Your task to perform on an android device: set the stopwatch Image 0: 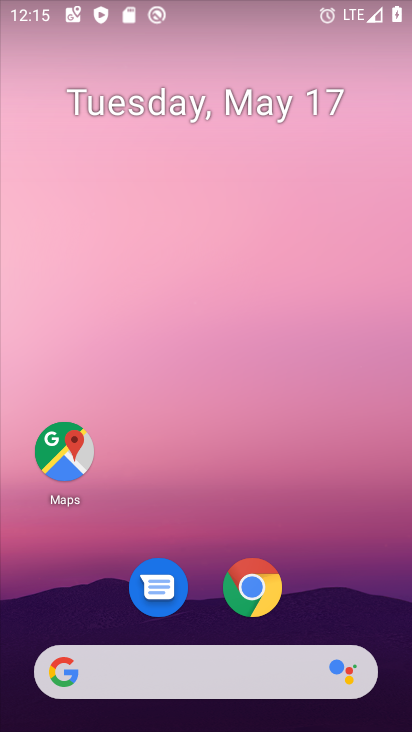
Step 0: drag from (390, 596) to (253, 36)
Your task to perform on an android device: set the stopwatch Image 1: 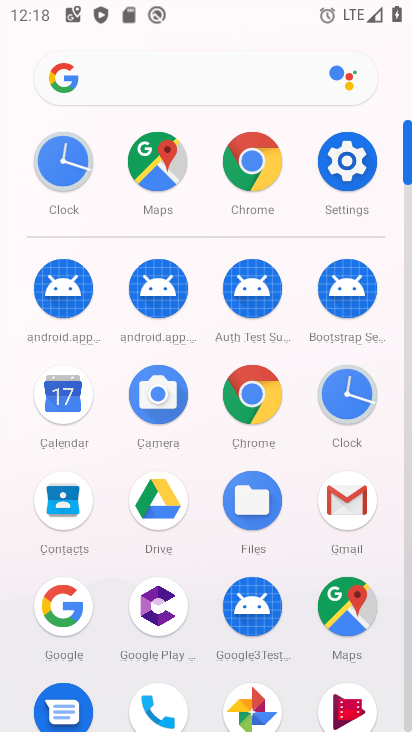
Step 1: click (342, 401)
Your task to perform on an android device: set the stopwatch Image 2: 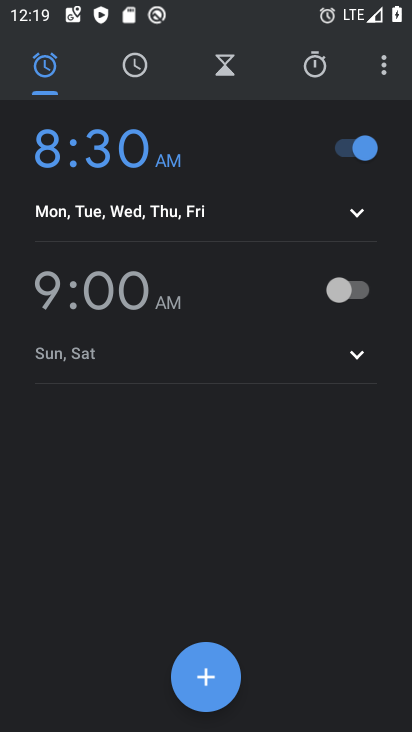
Step 2: click (314, 79)
Your task to perform on an android device: set the stopwatch Image 3: 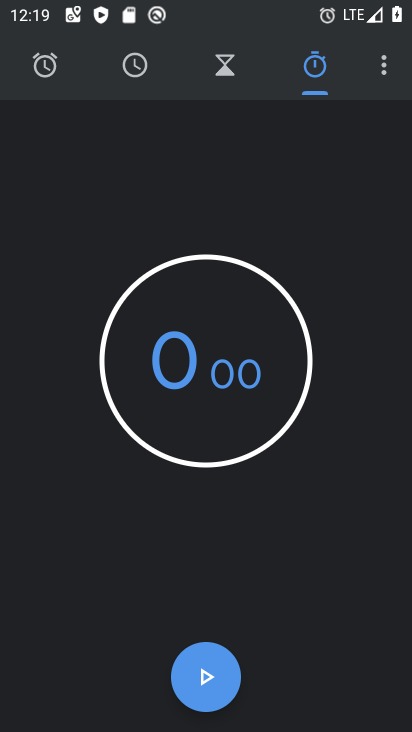
Step 3: task complete